Your task to perform on an android device: What's the weather today? Image 0: 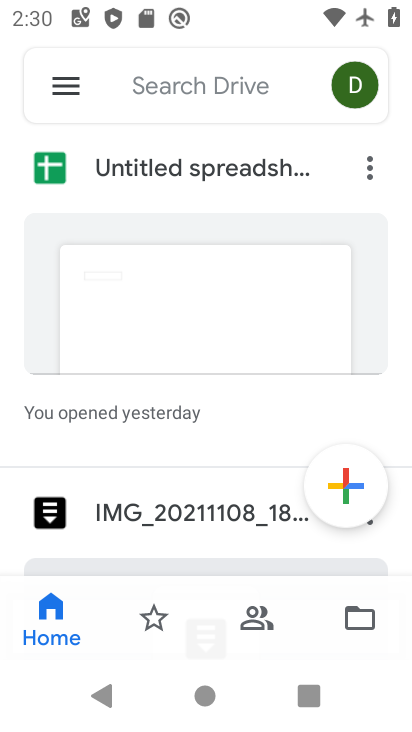
Step 0: press home button
Your task to perform on an android device: What's the weather today? Image 1: 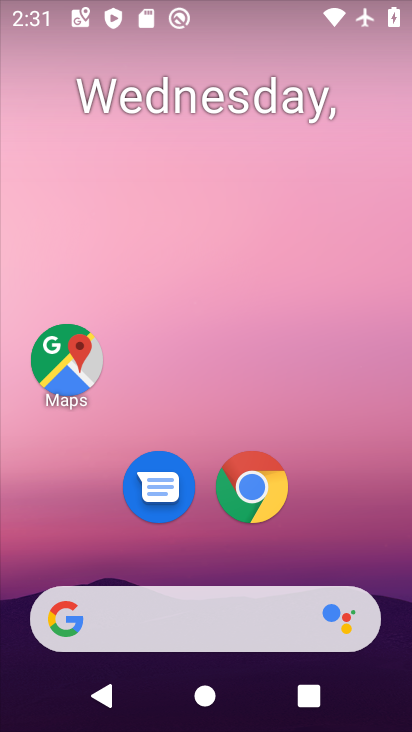
Step 1: drag from (331, 478) to (318, 159)
Your task to perform on an android device: What's the weather today? Image 2: 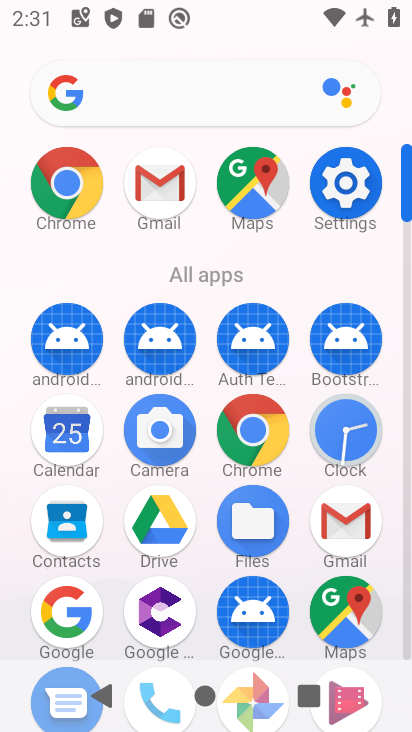
Step 2: click (76, 100)
Your task to perform on an android device: What's the weather today? Image 3: 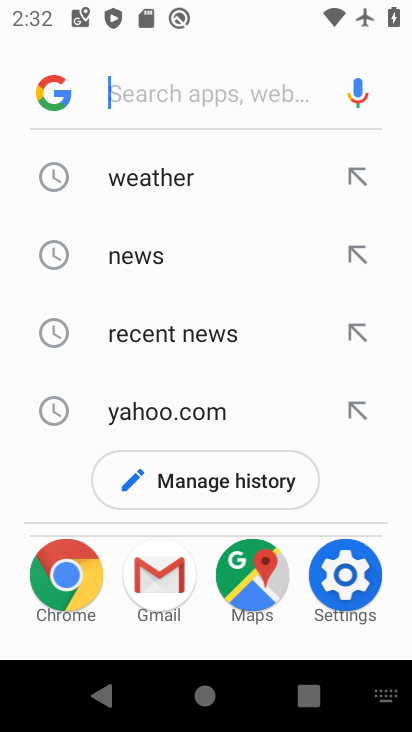
Step 3: click (32, 94)
Your task to perform on an android device: What's the weather today? Image 4: 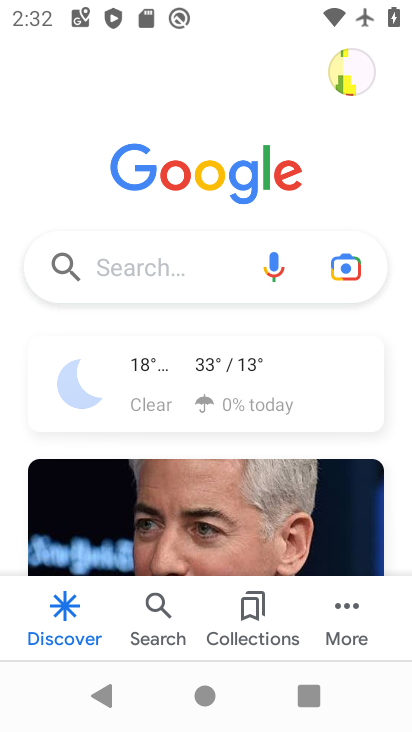
Step 4: click (181, 355)
Your task to perform on an android device: What's the weather today? Image 5: 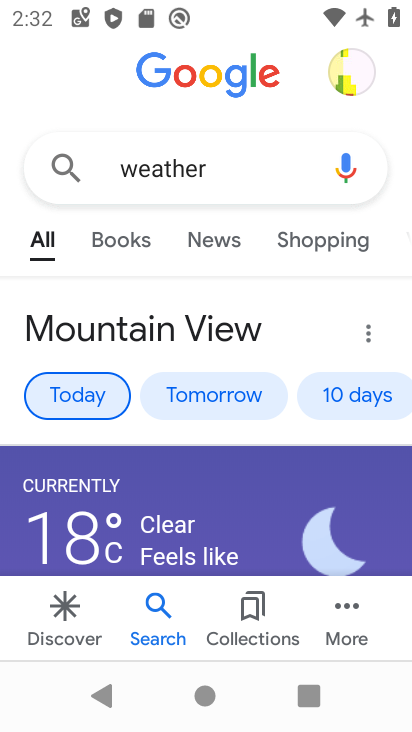
Step 5: task complete